Your task to perform on an android device: Open the map Image 0: 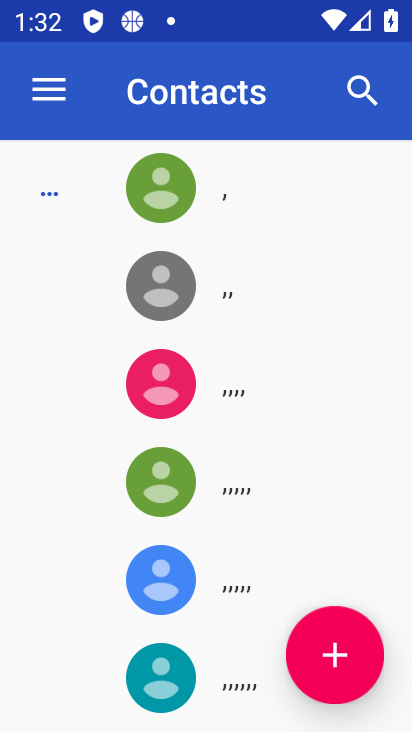
Step 0: press back button
Your task to perform on an android device: Open the map Image 1: 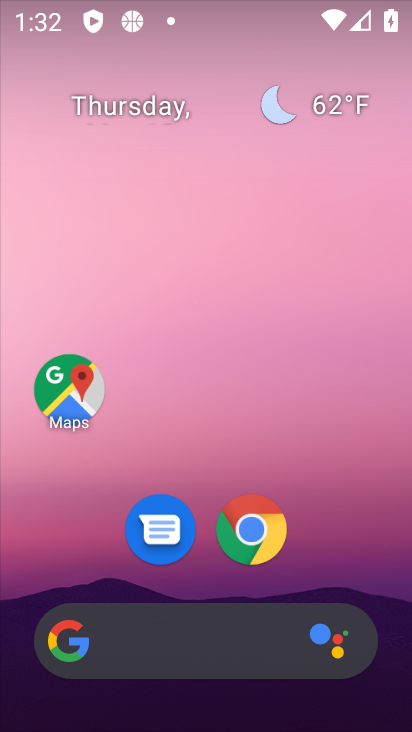
Step 1: click (69, 388)
Your task to perform on an android device: Open the map Image 2: 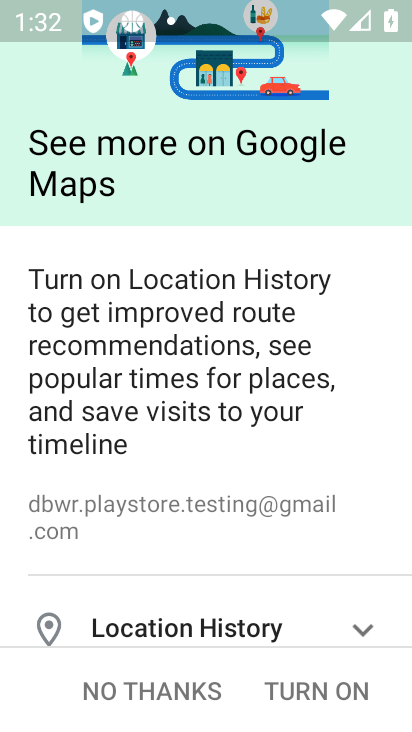
Step 2: click (131, 689)
Your task to perform on an android device: Open the map Image 3: 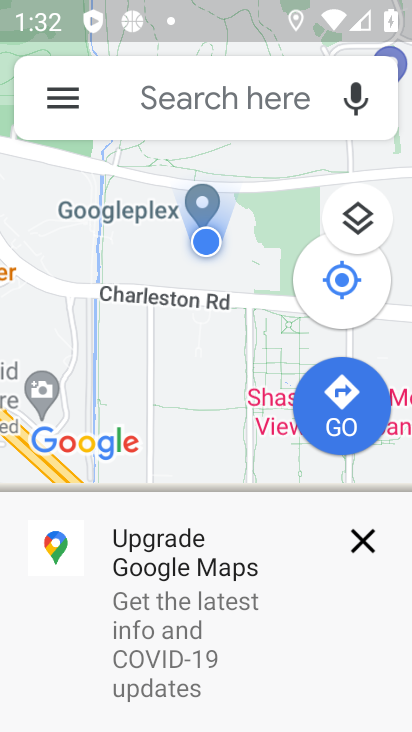
Step 3: task complete